Your task to perform on an android device: turn off priority inbox in the gmail app Image 0: 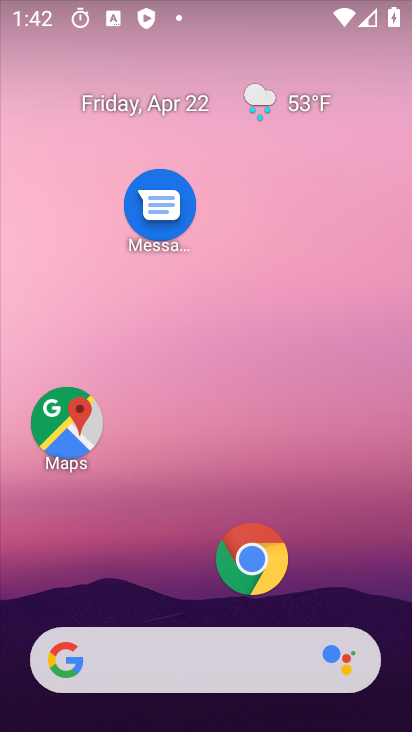
Step 0: drag from (224, 627) to (308, 325)
Your task to perform on an android device: turn off priority inbox in the gmail app Image 1: 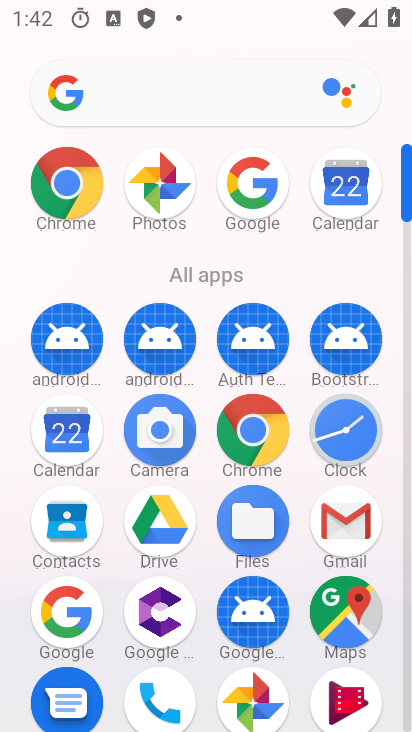
Step 1: click (347, 521)
Your task to perform on an android device: turn off priority inbox in the gmail app Image 2: 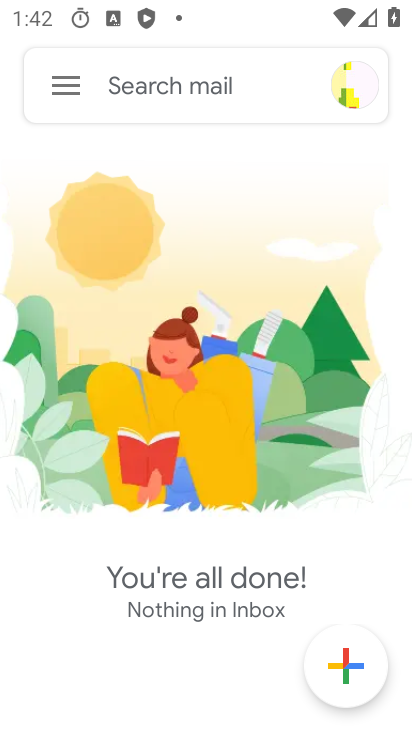
Step 2: click (68, 94)
Your task to perform on an android device: turn off priority inbox in the gmail app Image 3: 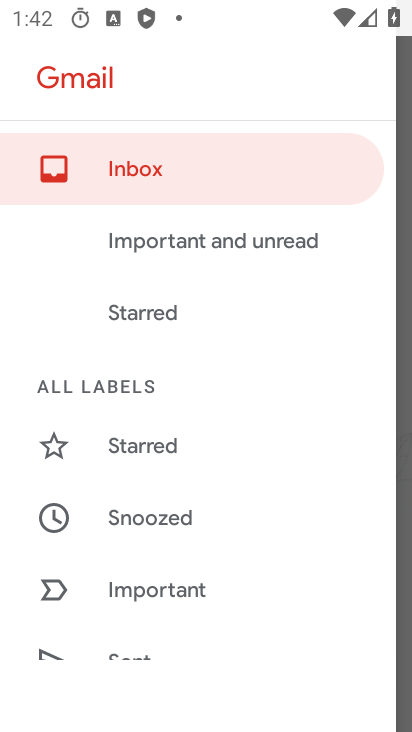
Step 3: drag from (216, 610) to (225, 196)
Your task to perform on an android device: turn off priority inbox in the gmail app Image 4: 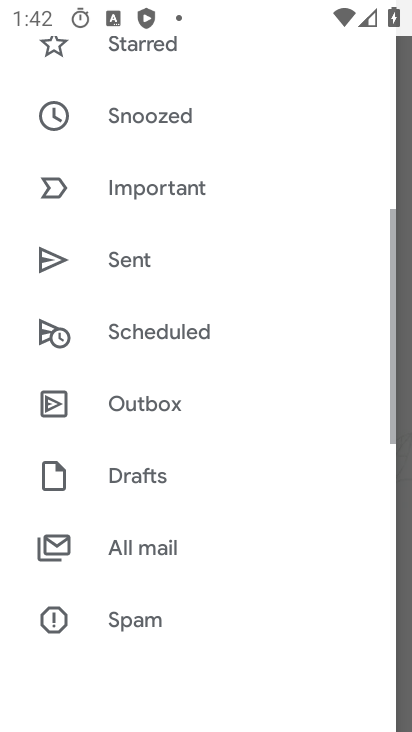
Step 4: drag from (186, 631) to (217, 305)
Your task to perform on an android device: turn off priority inbox in the gmail app Image 5: 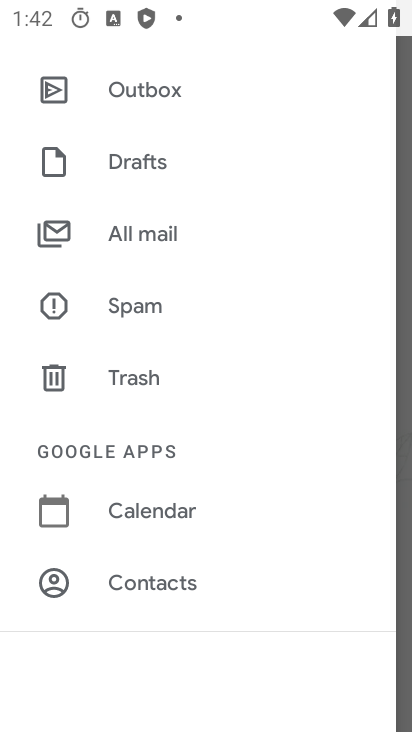
Step 5: drag from (198, 607) to (268, 273)
Your task to perform on an android device: turn off priority inbox in the gmail app Image 6: 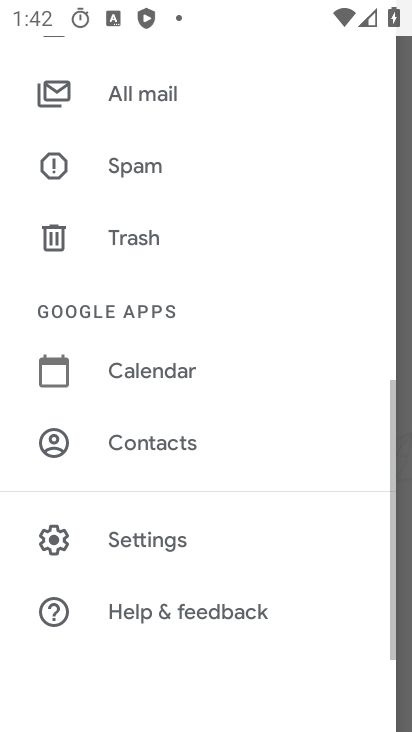
Step 6: click (176, 536)
Your task to perform on an android device: turn off priority inbox in the gmail app Image 7: 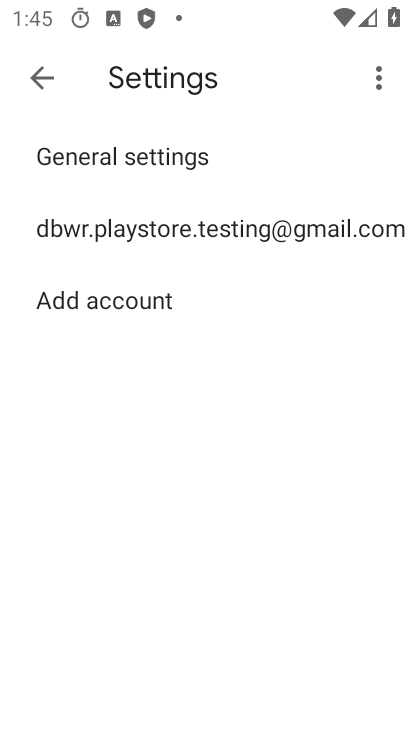
Step 7: click (69, 229)
Your task to perform on an android device: turn off priority inbox in the gmail app Image 8: 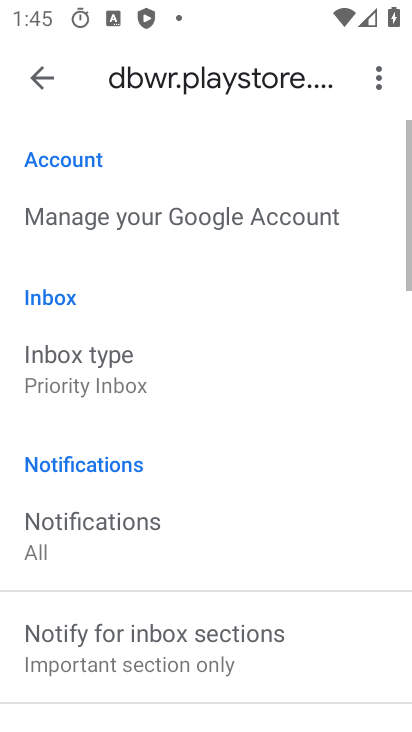
Step 8: click (81, 386)
Your task to perform on an android device: turn off priority inbox in the gmail app Image 9: 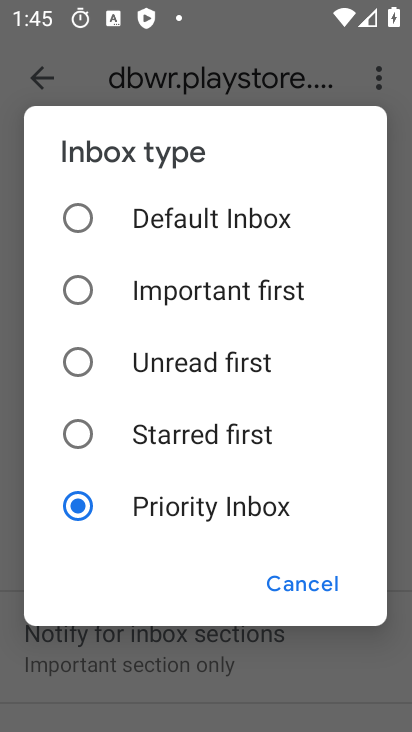
Step 9: click (84, 372)
Your task to perform on an android device: turn off priority inbox in the gmail app Image 10: 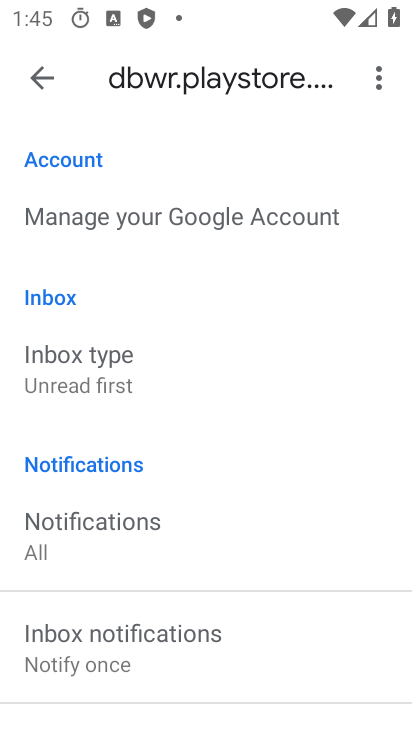
Step 10: task complete